Your task to perform on an android device: change the clock display to digital Image 0: 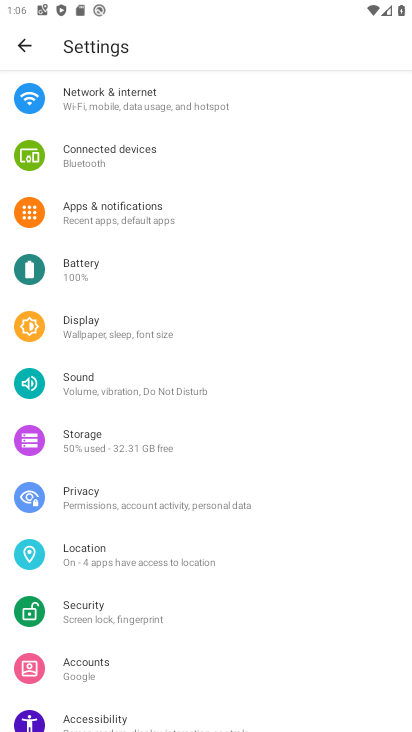
Step 0: press home button
Your task to perform on an android device: change the clock display to digital Image 1: 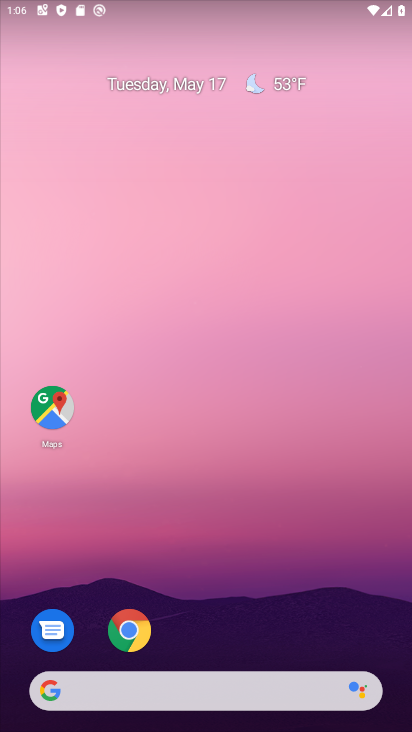
Step 1: drag from (234, 669) to (217, 257)
Your task to perform on an android device: change the clock display to digital Image 2: 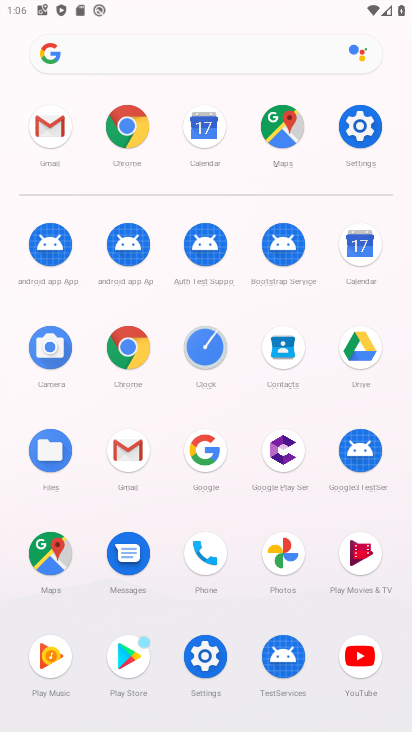
Step 2: click (197, 369)
Your task to perform on an android device: change the clock display to digital Image 3: 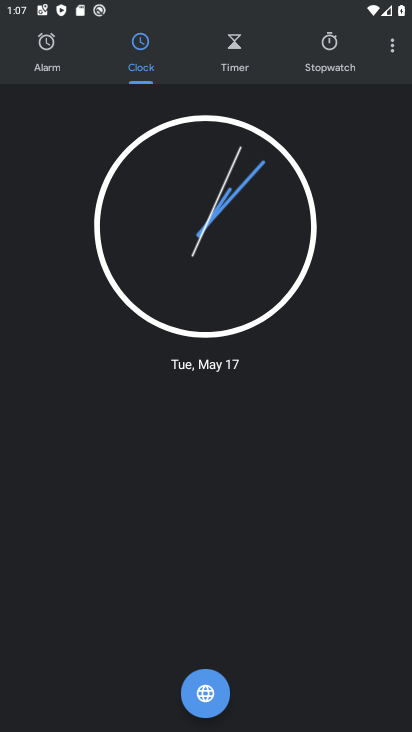
Step 3: click (393, 57)
Your task to perform on an android device: change the clock display to digital Image 4: 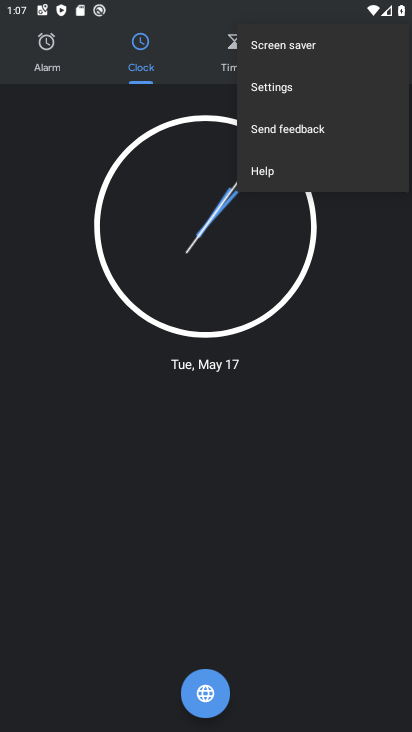
Step 4: click (273, 101)
Your task to perform on an android device: change the clock display to digital Image 5: 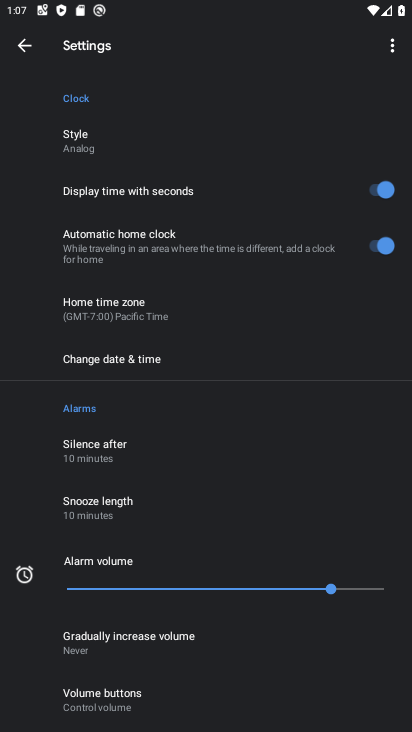
Step 5: click (111, 146)
Your task to perform on an android device: change the clock display to digital Image 6: 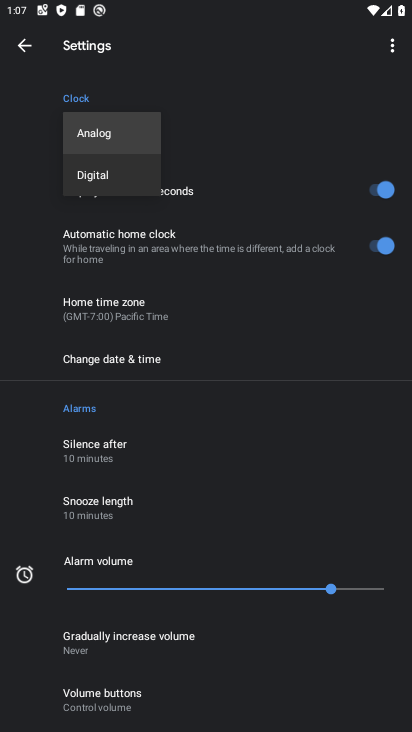
Step 6: click (113, 182)
Your task to perform on an android device: change the clock display to digital Image 7: 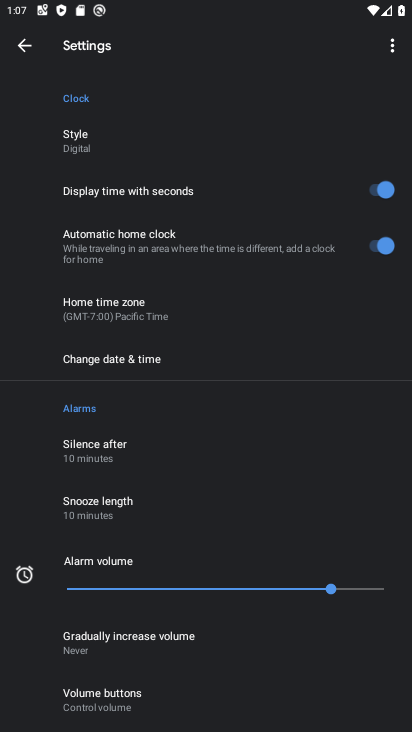
Step 7: task complete